Your task to perform on an android device: set the stopwatch Image 0: 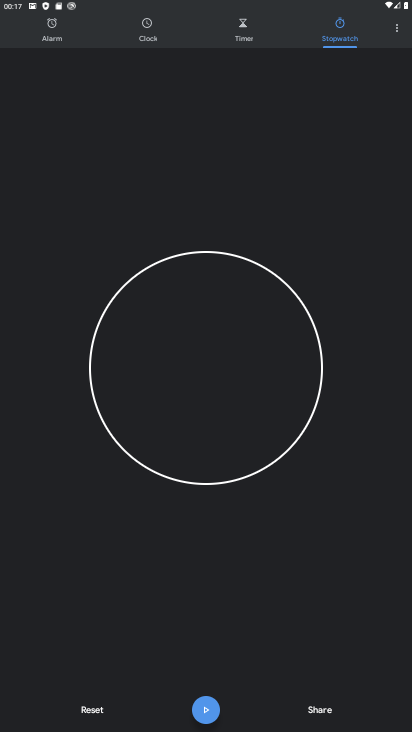
Step 0: press home button
Your task to perform on an android device: set the stopwatch Image 1: 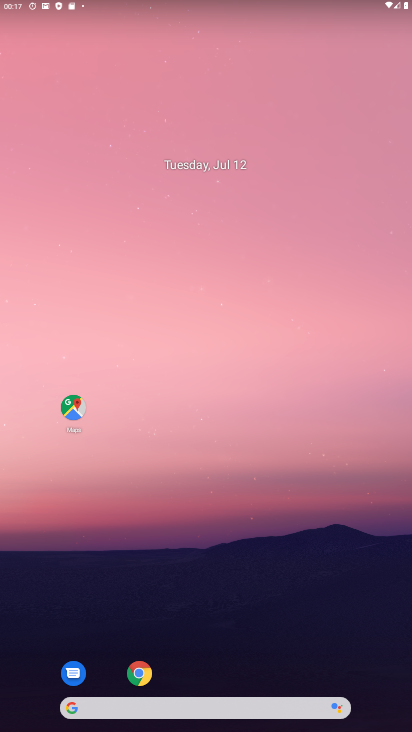
Step 1: drag from (319, 601) to (278, 121)
Your task to perform on an android device: set the stopwatch Image 2: 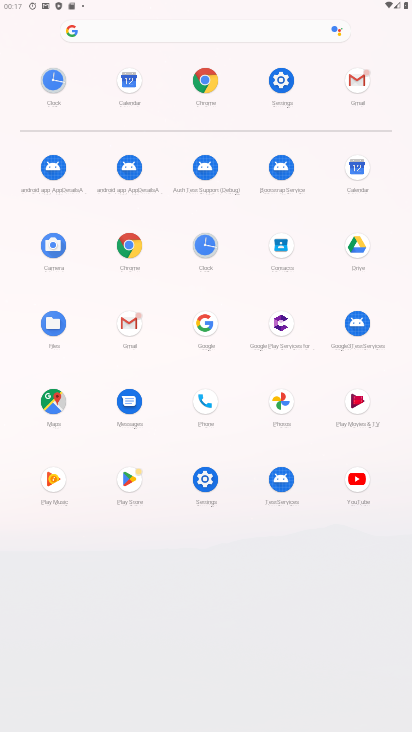
Step 2: click (211, 242)
Your task to perform on an android device: set the stopwatch Image 3: 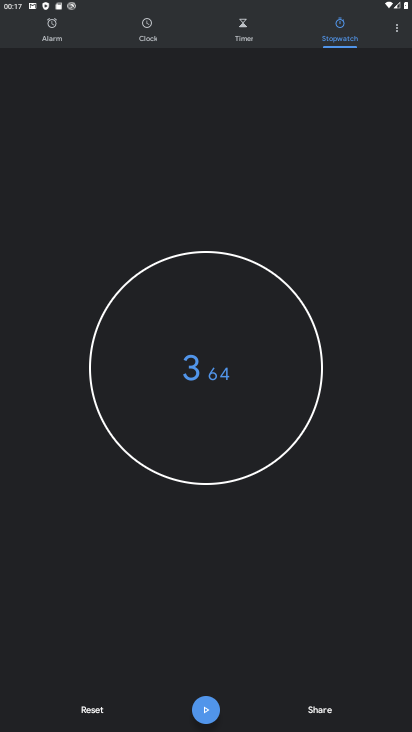
Step 3: click (201, 705)
Your task to perform on an android device: set the stopwatch Image 4: 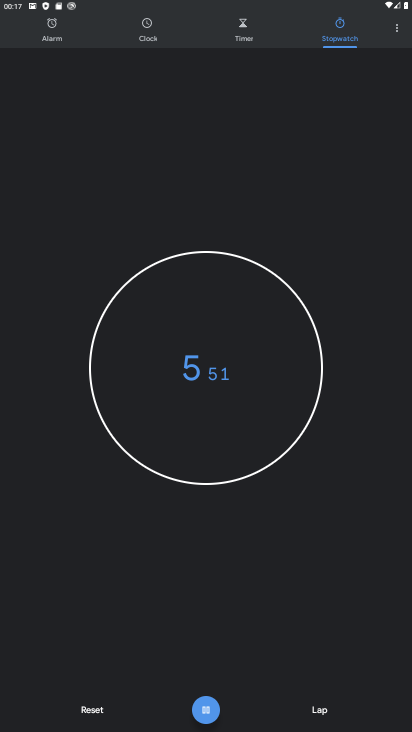
Step 4: click (196, 704)
Your task to perform on an android device: set the stopwatch Image 5: 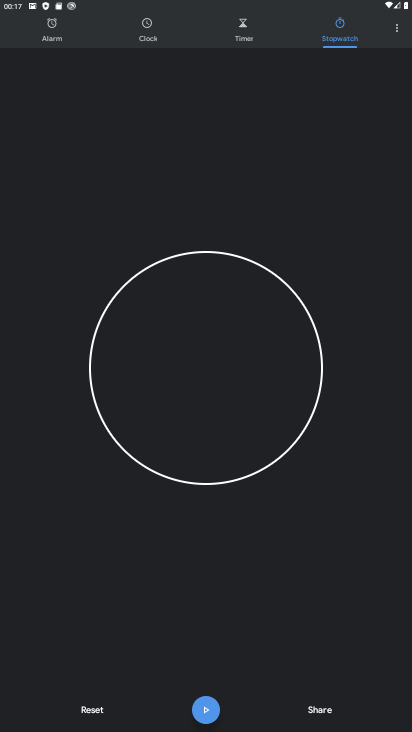
Step 5: click (92, 712)
Your task to perform on an android device: set the stopwatch Image 6: 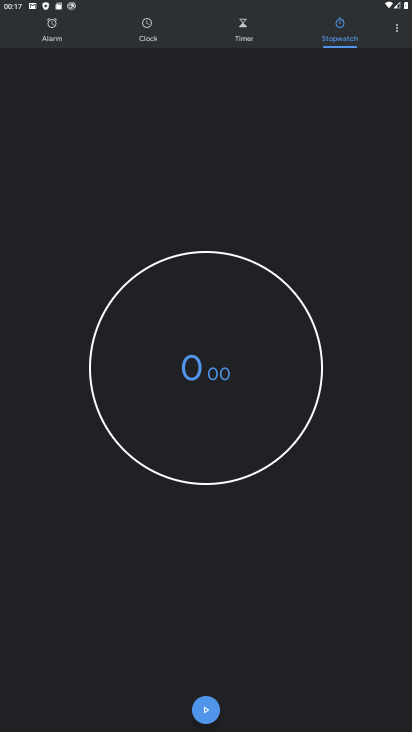
Step 6: task complete